Your task to perform on an android device: Search for "usb-c to usb-b" on amazon, select the first entry, and add it to the cart. Image 0: 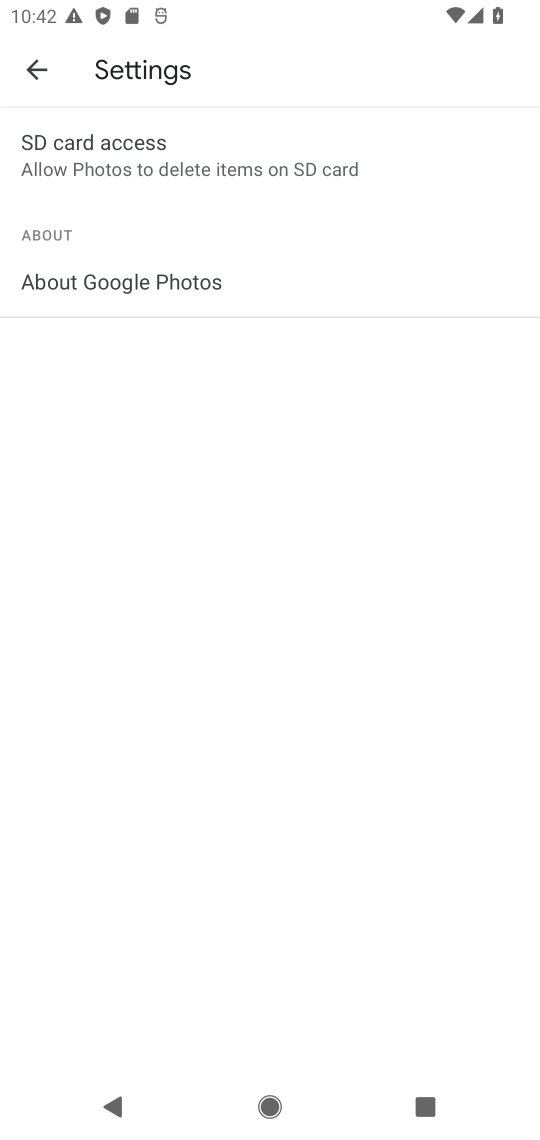
Step 0: press home button
Your task to perform on an android device: Search for "usb-c to usb-b" on amazon, select the first entry, and add it to the cart. Image 1: 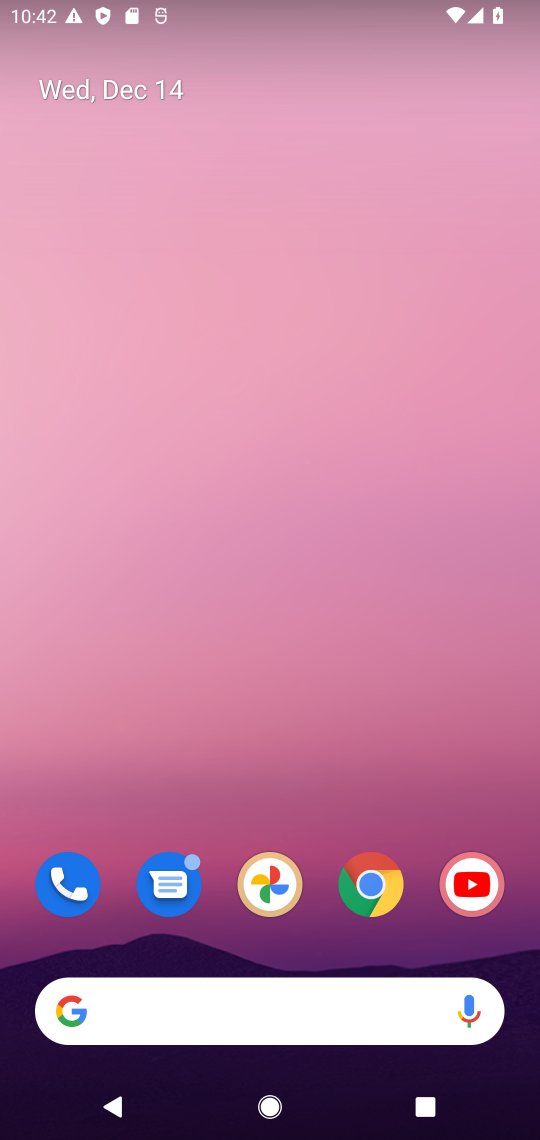
Step 1: click (379, 890)
Your task to perform on an android device: Search for "usb-c to usb-b" on amazon, select the first entry, and add it to the cart. Image 2: 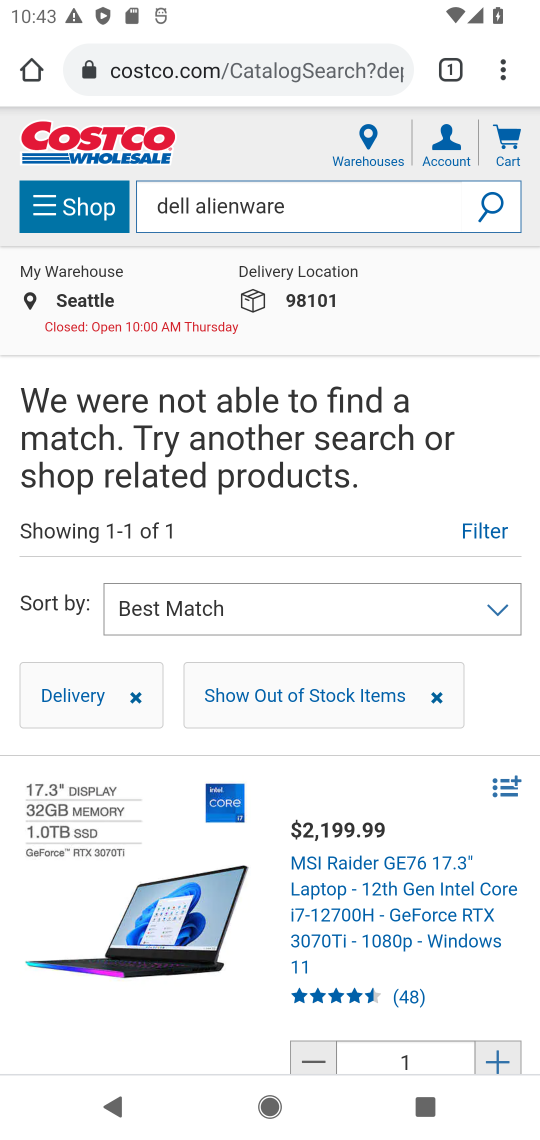
Step 2: click (350, 75)
Your task to perform on an android device: Search for "usb-c to usb-b" on amazon, select the first entry, and add it to the cart. Image 3: 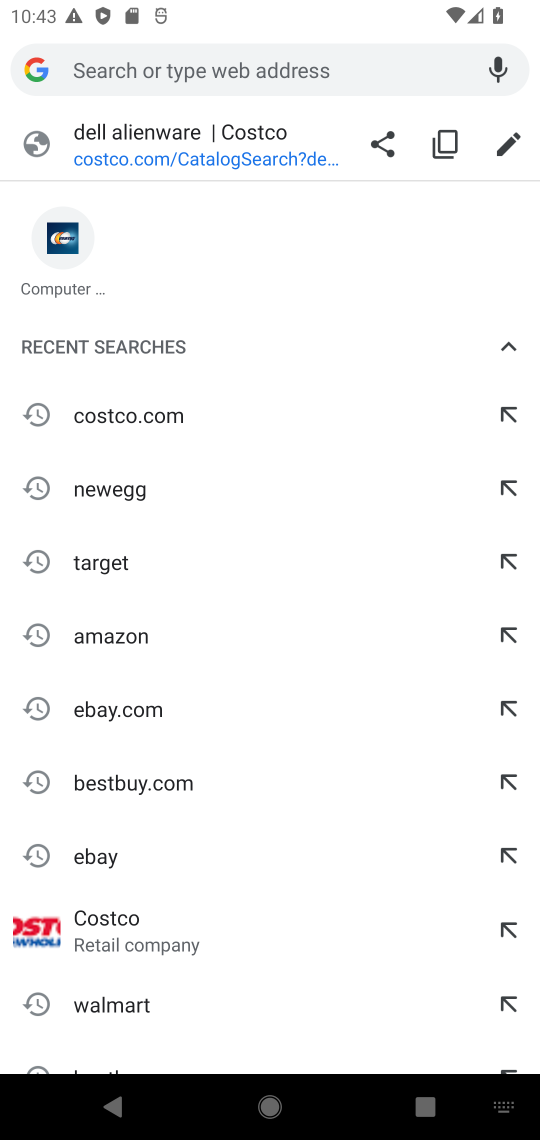
Step 3: click (138, 628)
Your task to perform on an android device: Search for "usb-c to usb-b" on amazon, select the first entry, and add it to the cart. Image 4: 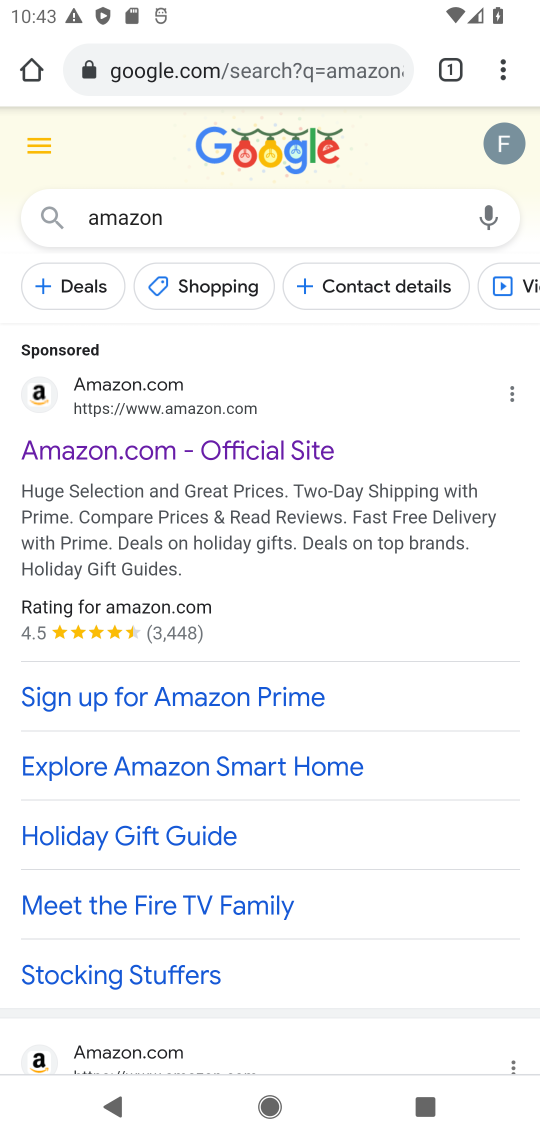
Step 4: click (158, 388)
Your task to perform on an android device: Search for "usb-c to usb-b" on amazon, select the first entry, and add it to the cart. Image 5: 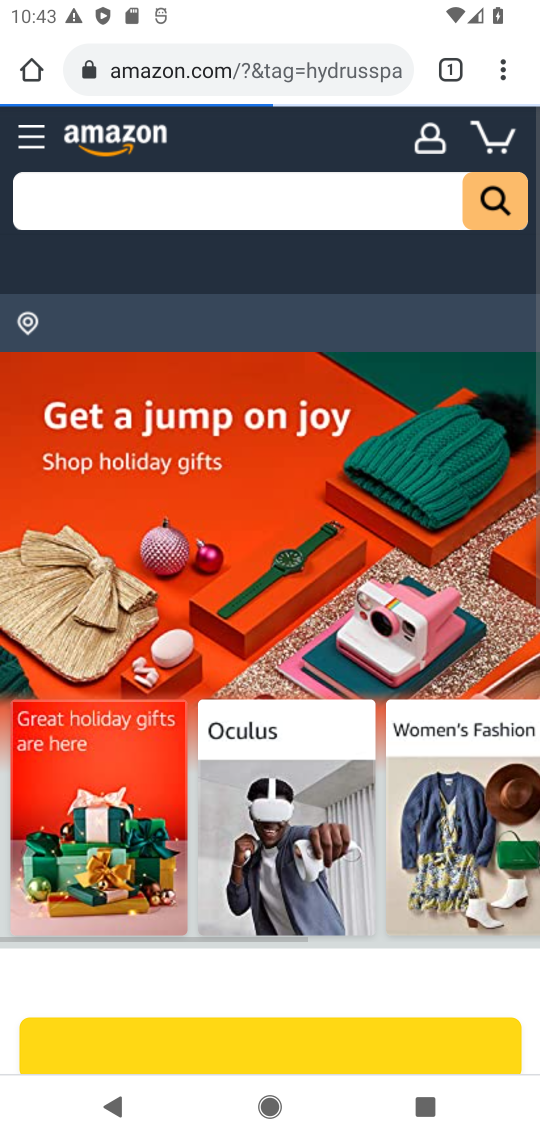
Step 5: press back button
Your task to perform on an android device: Search for "usb-c to usb-b" on amazon, select the first entry, and add it to the cart. Image 6: 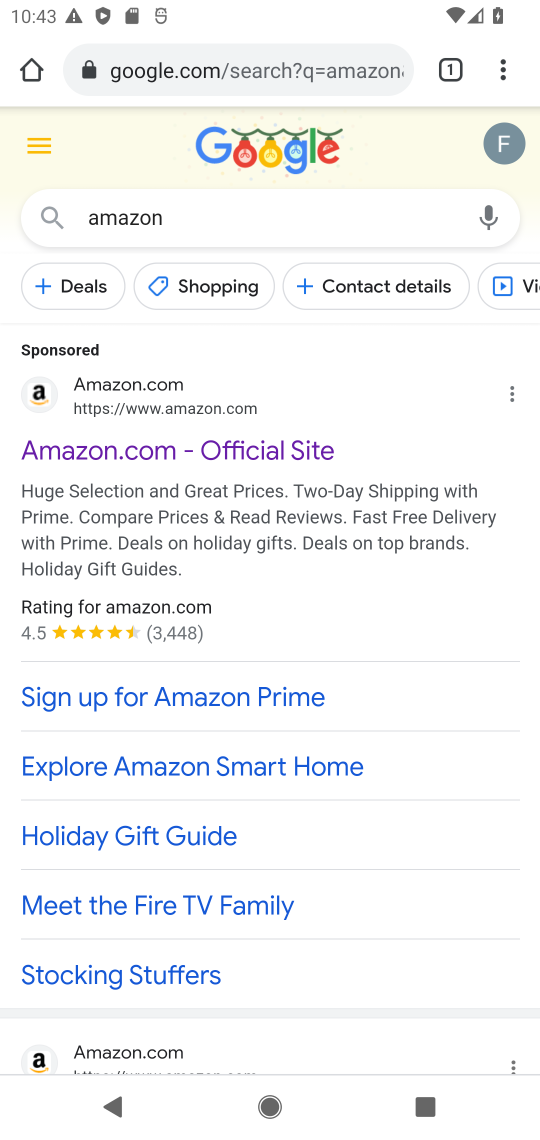
Step 6: drag from (390, 848) to (393, 303)
Your task to perform on an android device: Search for "usb-c to usb-b" on amazon, select the first entry, and add it to the cart. Image 7: 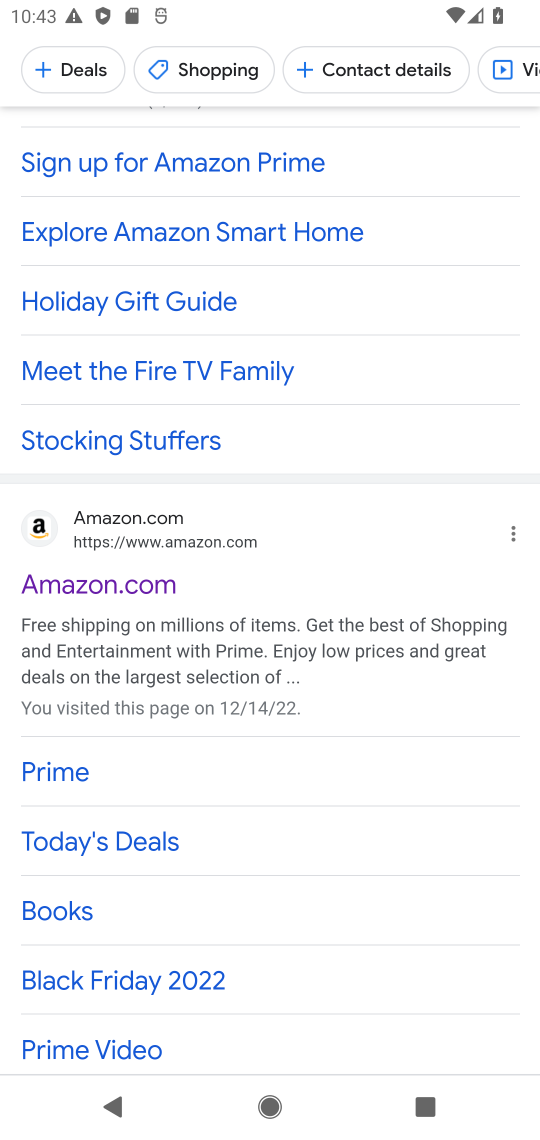
Step 7: click (197, 537)
Your task to perform on an android device: Search for "usb-c to usb-b" on amazon, select the first entry, and add it to the cart. Image 8: 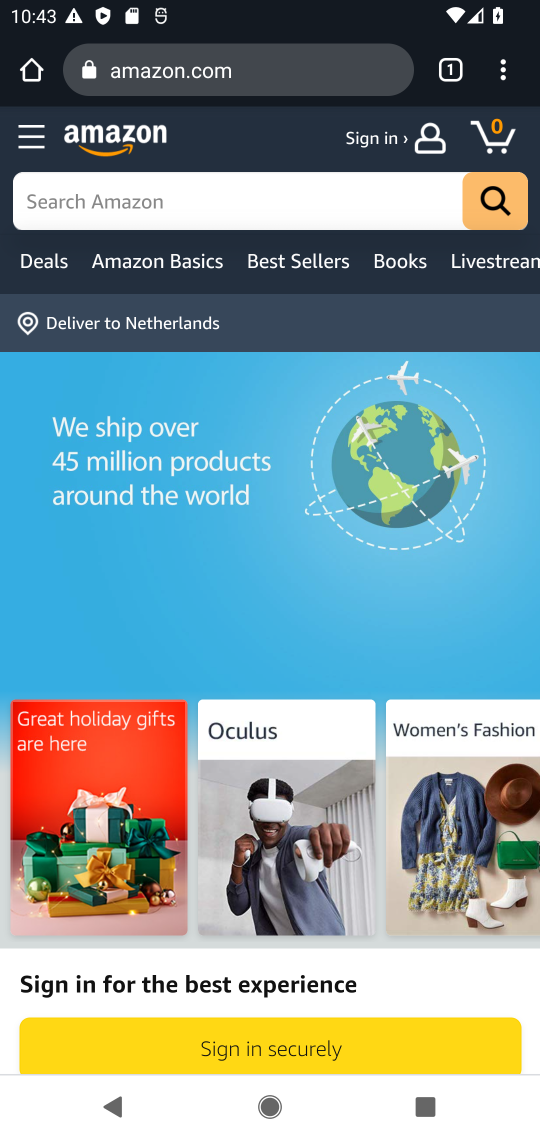
Step 8: click (336, 205)
Your task to perform on an android device: Search for "usb-c to usb-b" on amazon, select the first entry, and add it to the cart. Image 9: 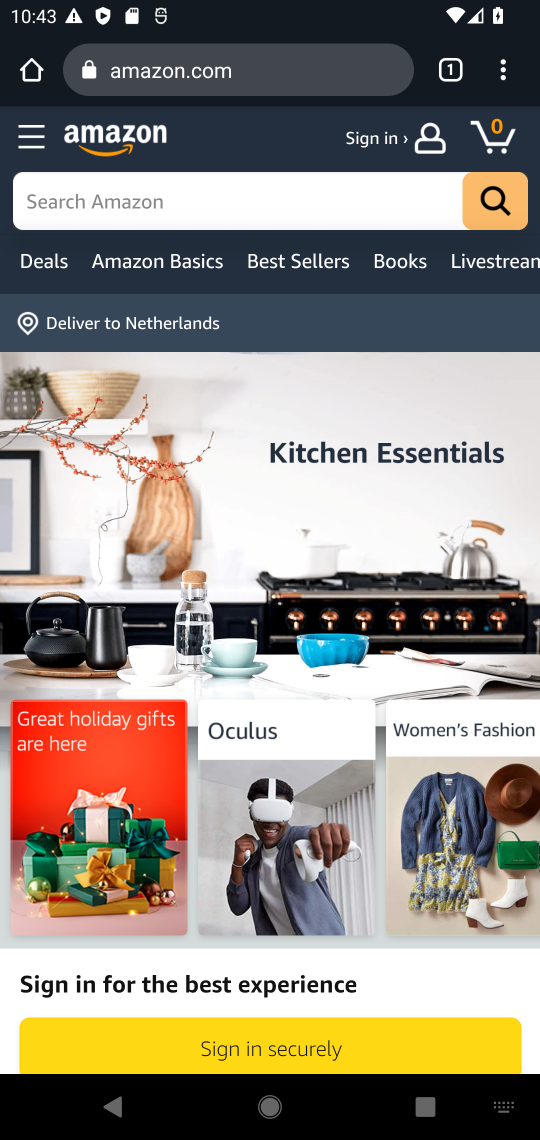
Step 9: press enter
Your task to perform on an android device: Search for "usb-c to usb-b" on amazon, select the first entry, and add it to the cart. Image 10: 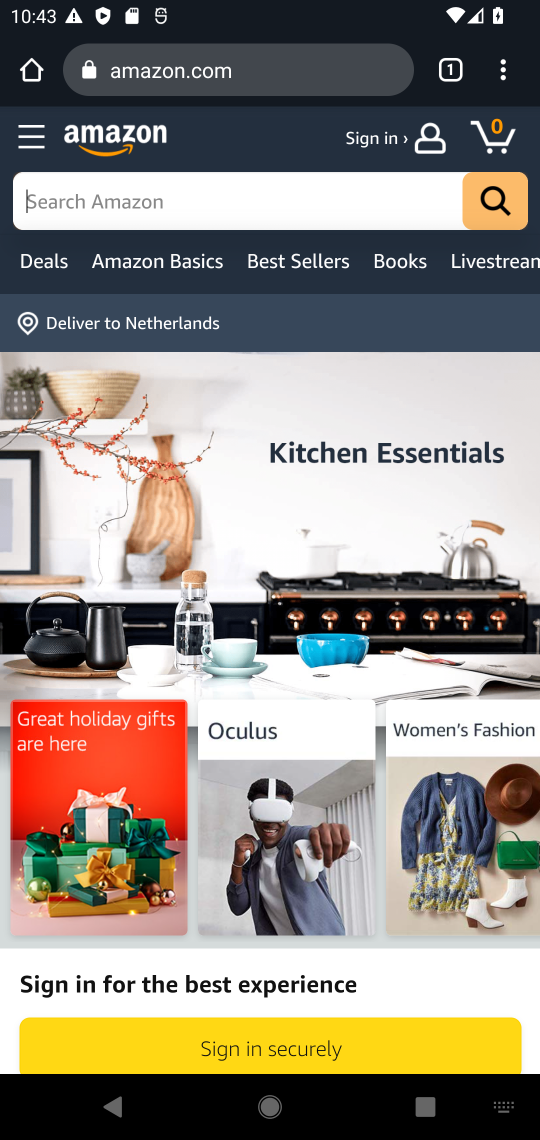
Step 10: type "usb-c to usb-b"
Your task to perform on an android device: Search for "usb-c to usb-b" on amazon, select the first entry, and add it to the cart. Image 11: 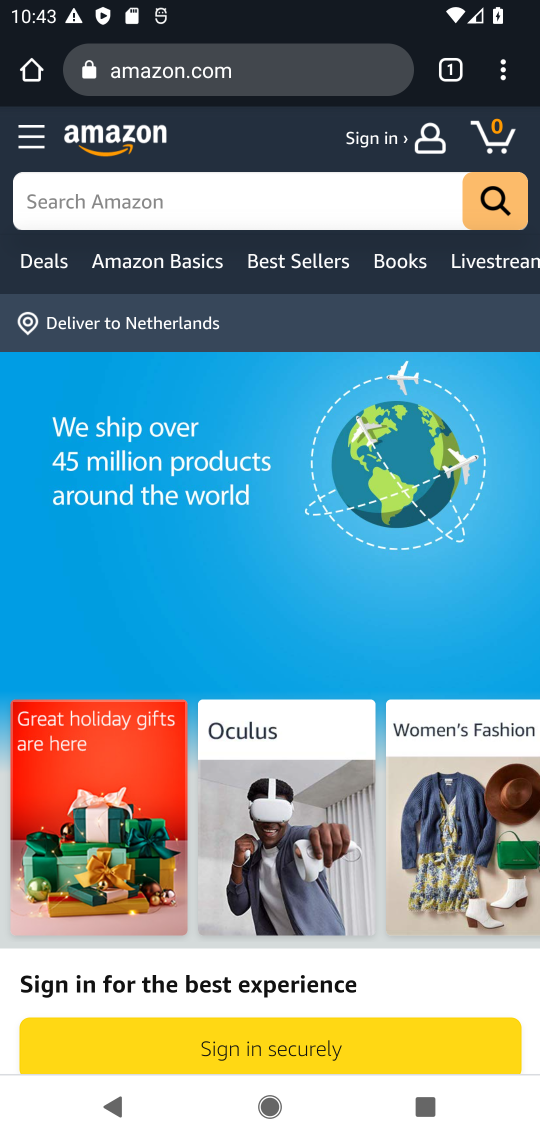
Step 11: click (397, 205)
Your task to perform on an android device: Search for "usb-c to usb-b" on amazon, select the first entry, and add it to the cart. Image 12: 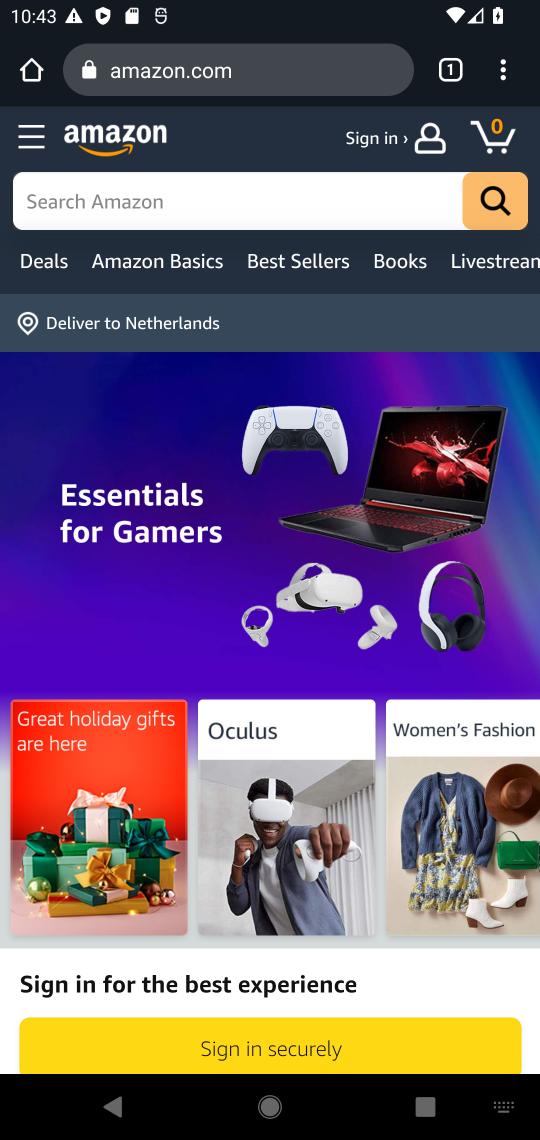
Step 12: press enter
Your task to perform on an android device: Search for "usb-c to usb-b" on amazon, select the first entry, and add it to the cart. Image 13: 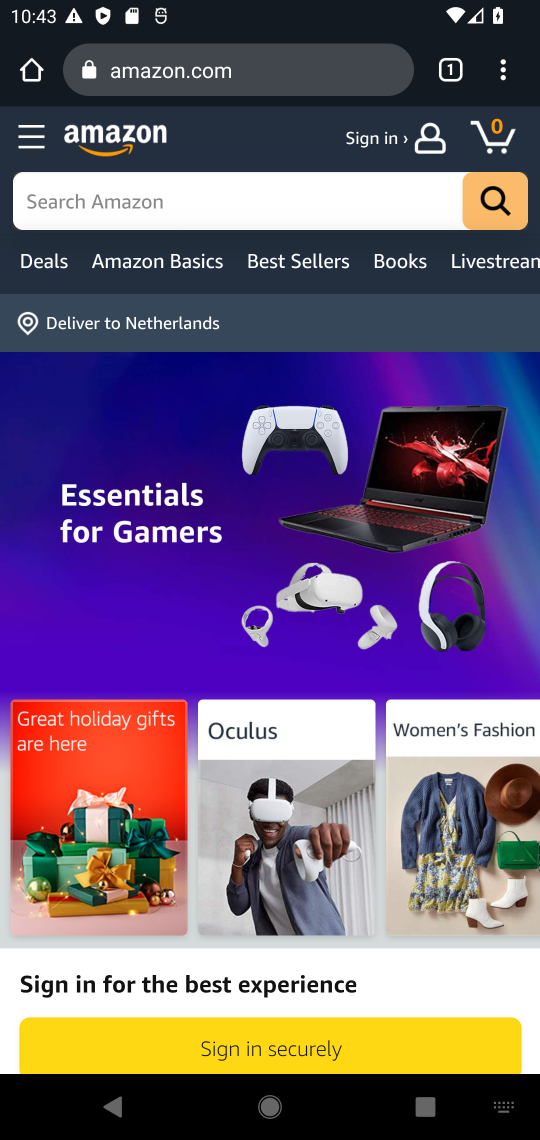
Step 13: type "usb-c to usb-b"
Your task to perform on an android device: Search for "usb-c to usb-b" on amazon, select the first entry, and add it to the cart. Image 14: 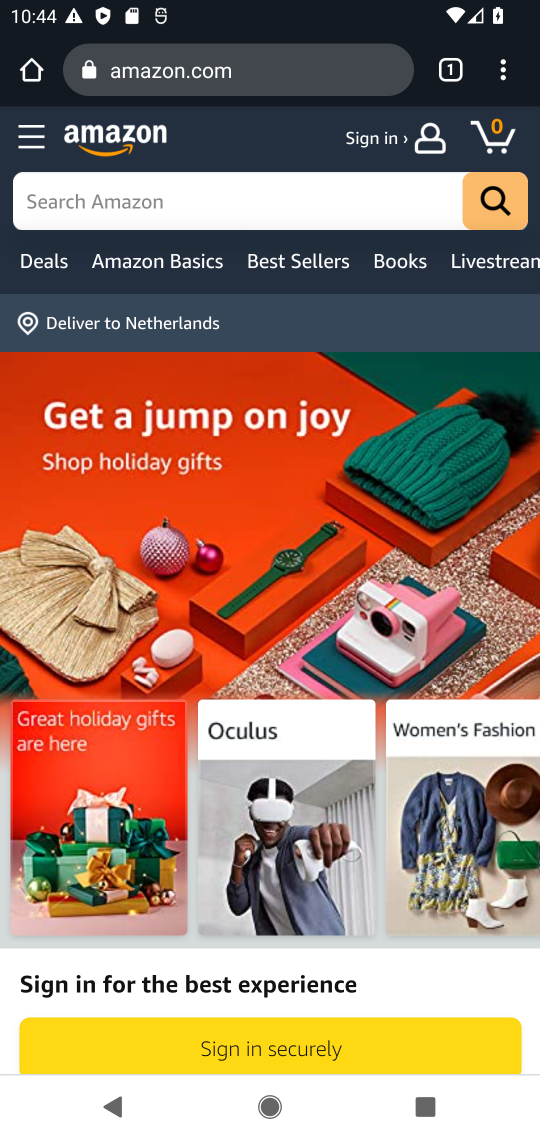
Step 14: click (287, 191)
Your task to perform on an android device: Search for "usb-c to usb-b" on amazon, select the first entry, and add it to the cart. Image 15: 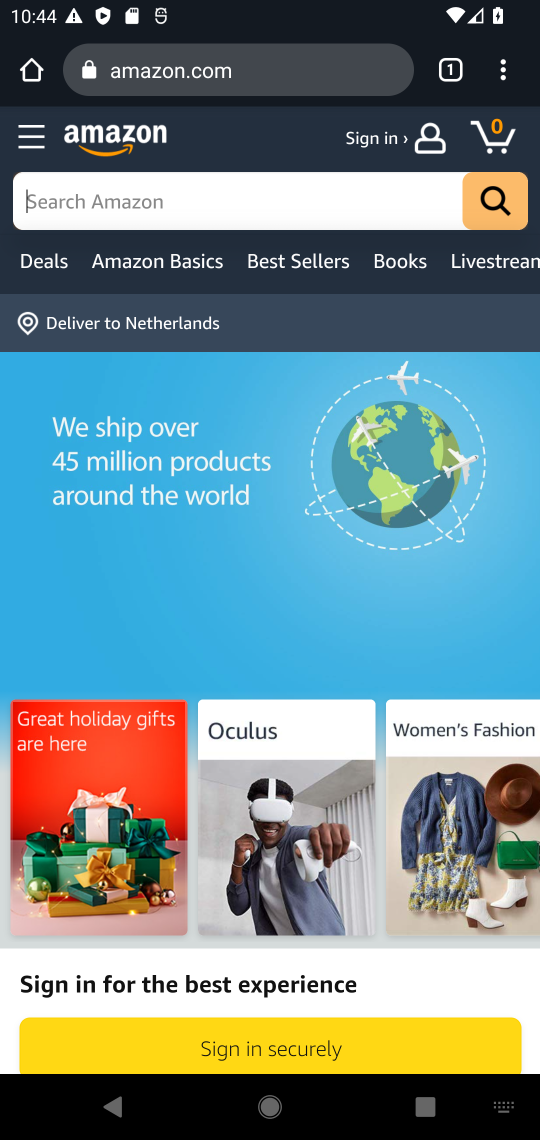
Step 15: press enter
Your task to perform on an android device: Search for "usb-c to usb-b" on amazon, select the first entry, and add it to the cart. Image 16: 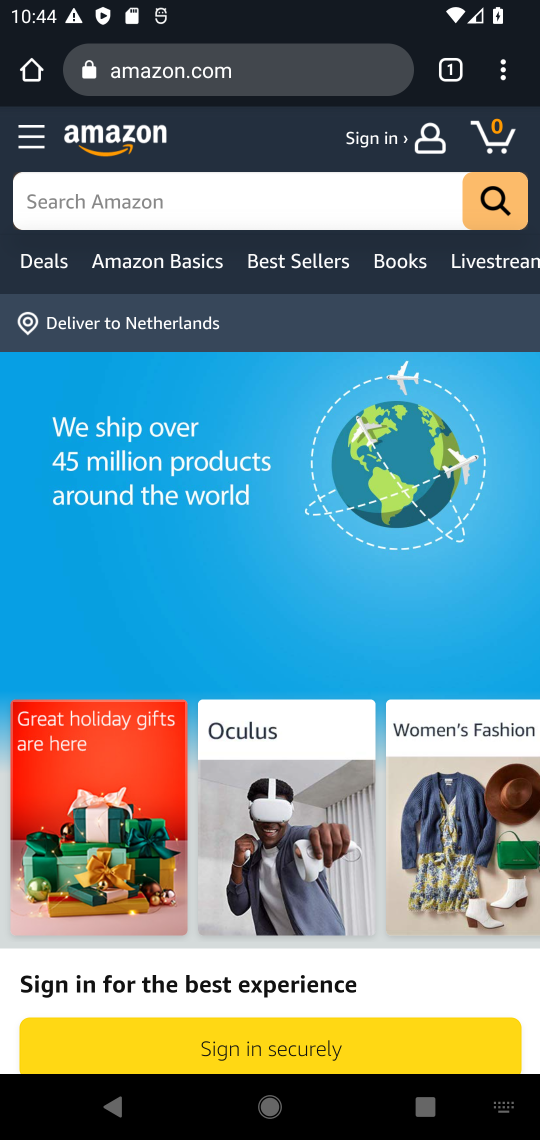
Step 16: type "usb-c to usb-b"
Your task to perform on an android device: Search for "usb-c to usb-b" on amazon, select the first entry, and add it to the cart. Image 17: 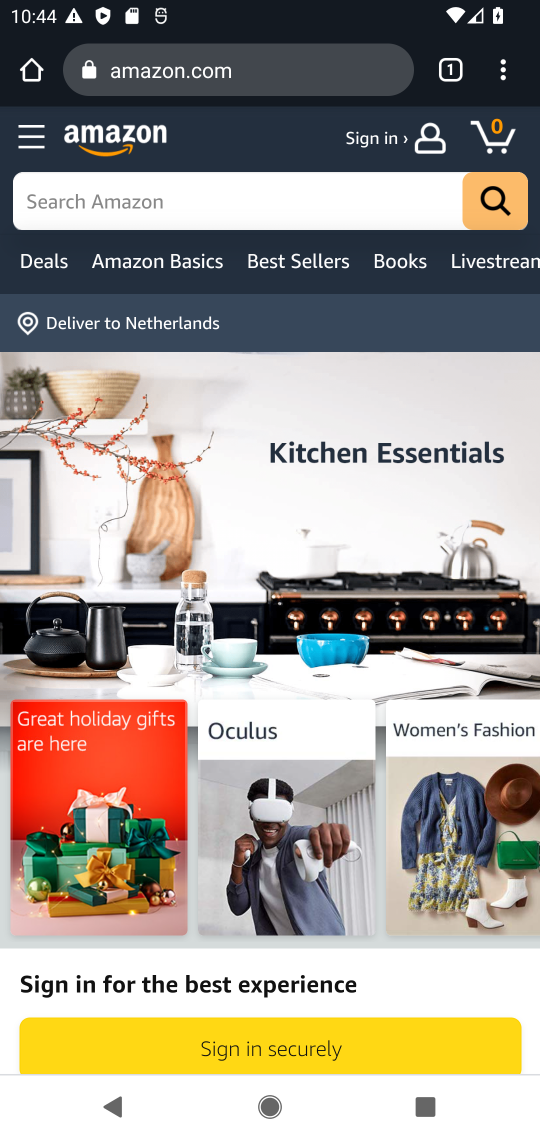
Step 17: click (284, 184)
Your task to perform on an android device: Search for "usb-c to usb-b" on amazon, select the first entry, and add it to the cart. Image 18: 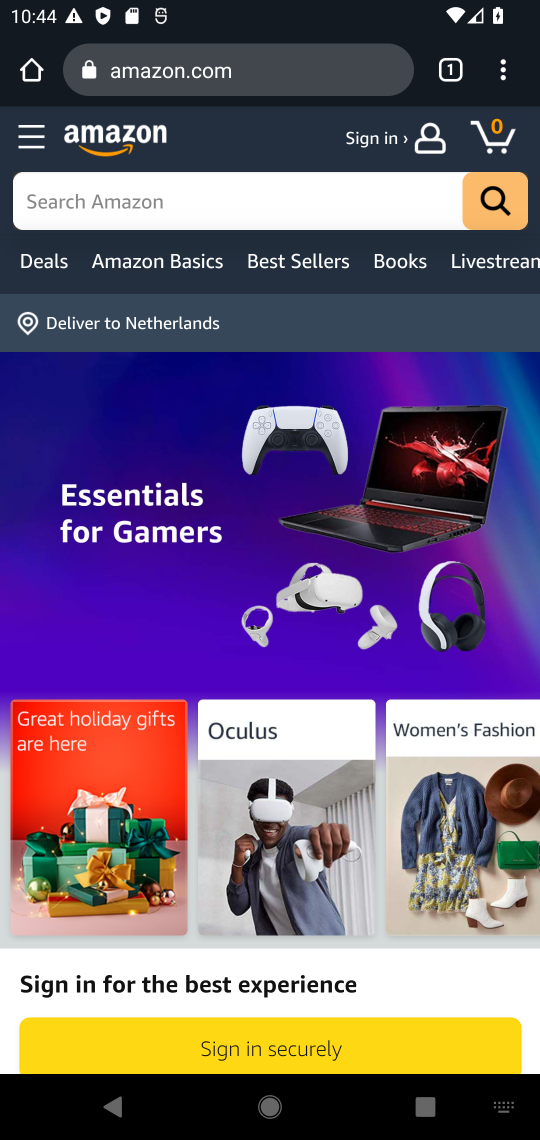
Step 18: press enter
Your task to perform on an android device: Search for "usb-c to usb-b" on amazon, select the first entry, and add it to the cart. Image 19: 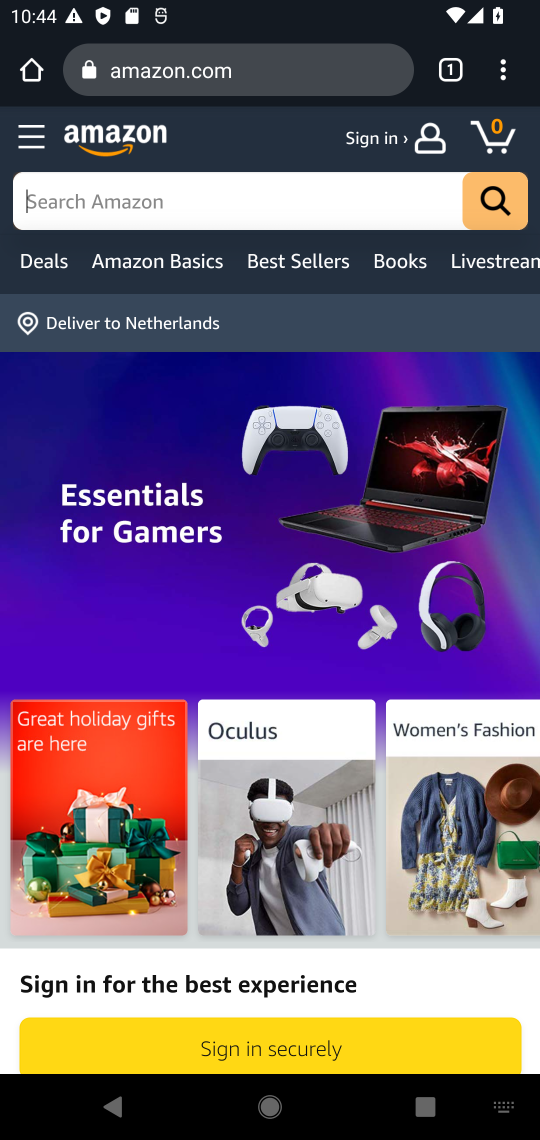
Step 19: type "usb-c to usb-b"
Your task to perform on an android device: Search for "usb-c to usb-b" on amazon, select the first entry, and add it to the cart. Image 20: 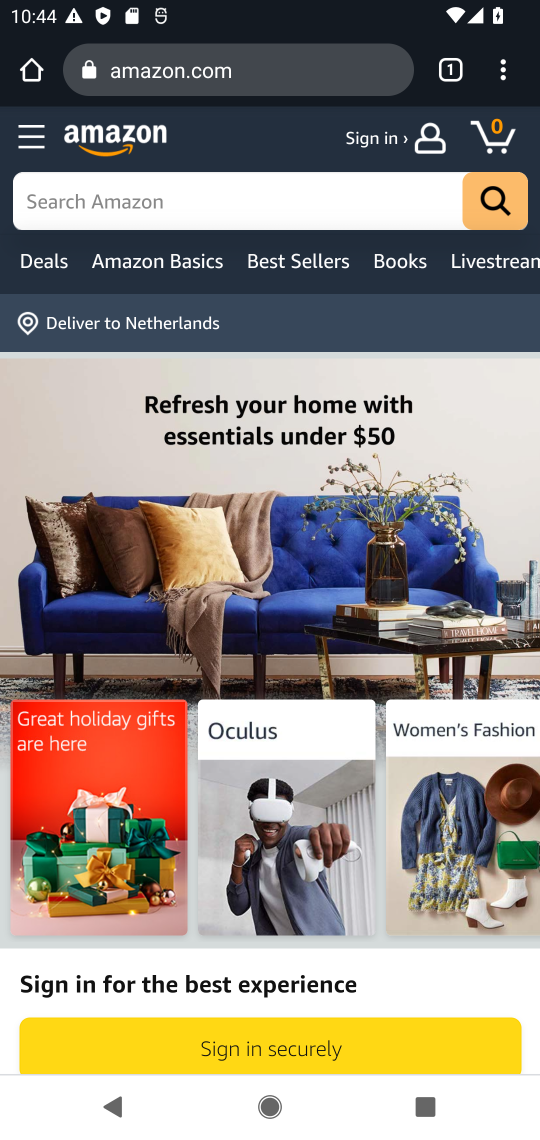
Step 20: click (245, 201)
Your task to perform on an android device: Search for "usb-c to usb-b" on amazon, select the first entry, and add it to the cart. Image 21: 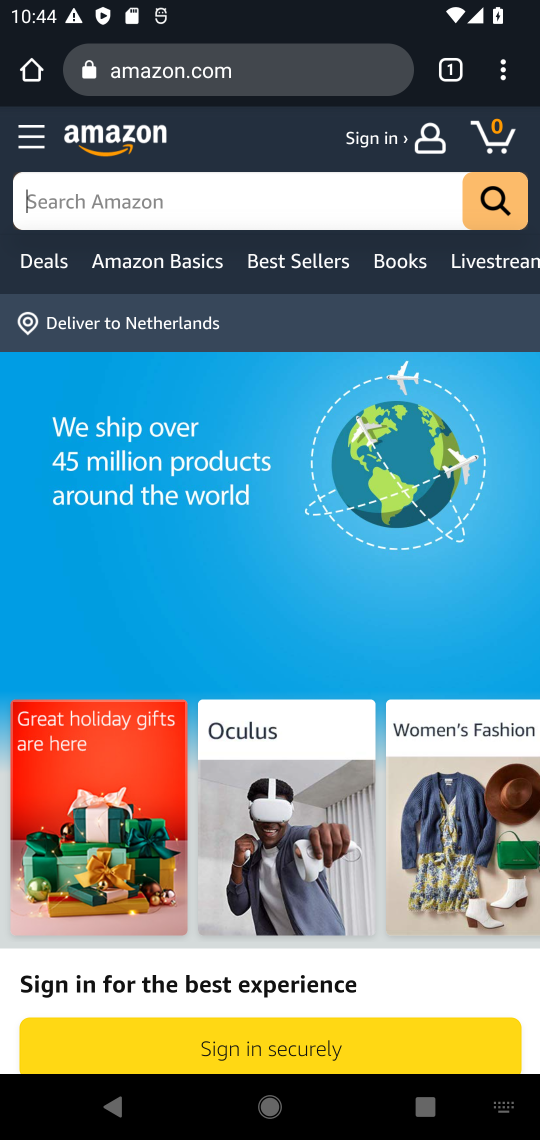
Step 21: press enter
Your task to perform on an android device: Search for "usb-c to usb-b" on amazon, select the first entry, and add it to the cart. Image 22: 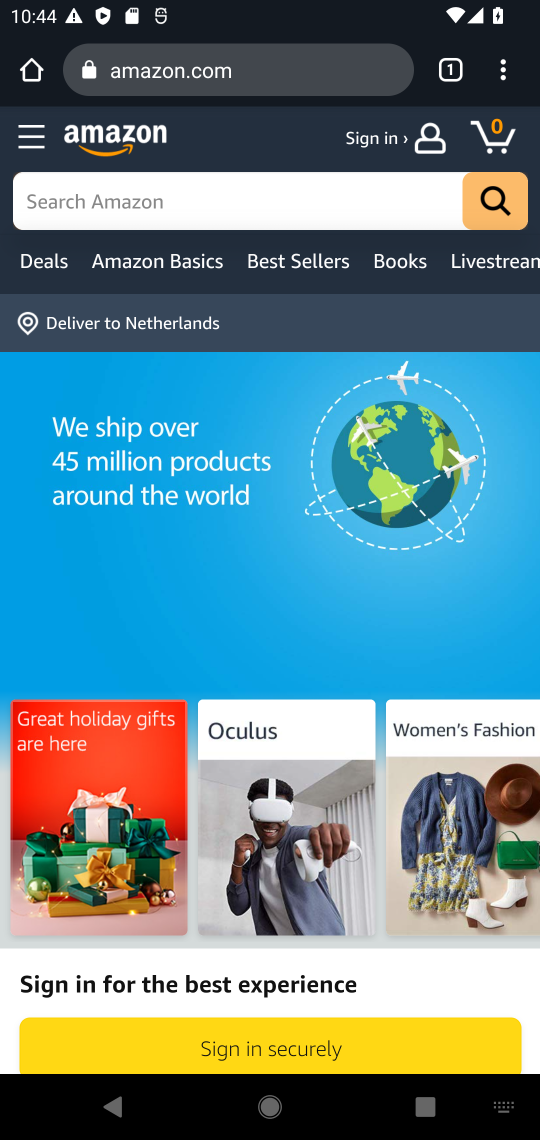
Step 22: type "usb-c to usb-b"
Your task to perform on an android device: Search for "usb-c to usb-b" on amazon, select the first entry, and add it to the cart. Image 23: 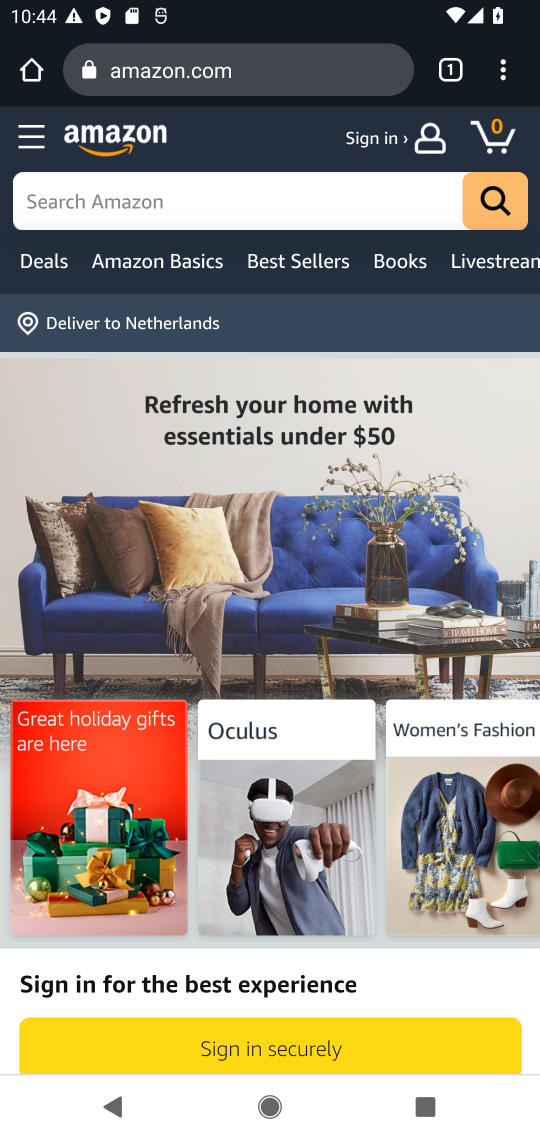
Step 23: task complete